Your task to perform on an android device: toggle data saver in the chrome app Image 0: 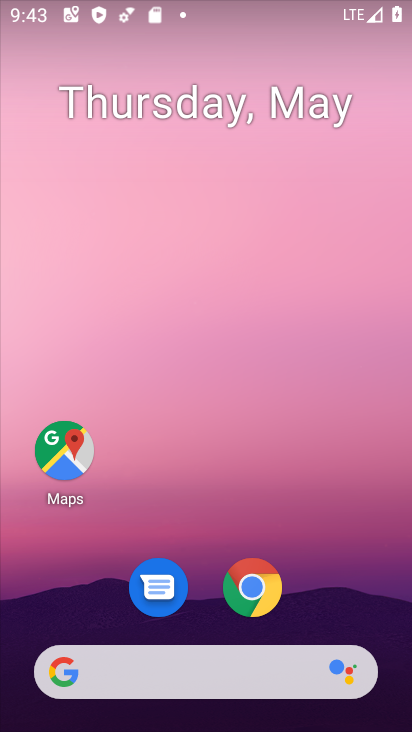
Step 0: click (244, 583)
Your task to perform on an android device: toggle data saver in the chrome app Image 1: 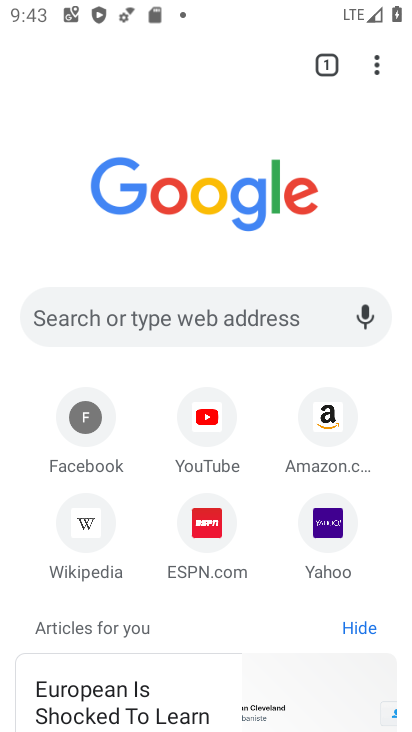
Step 1: click (377, 67)
Your task to perform on an android device: toggle data saver in the chrome app Image 2: 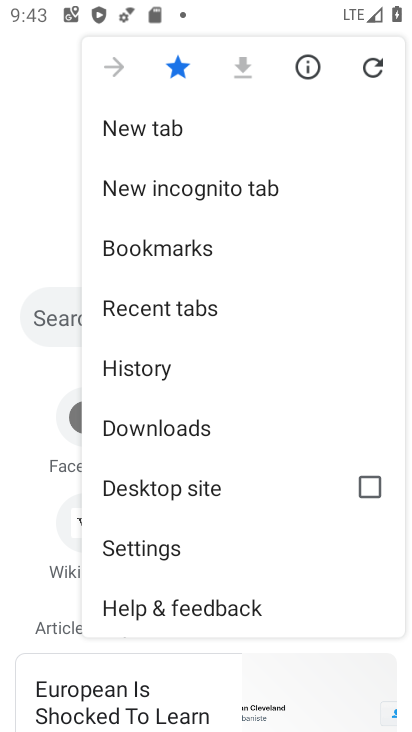
Step 2: click (141, 545)
Your task to perform on an android device: toggle data saver in the chrome app Image 3: 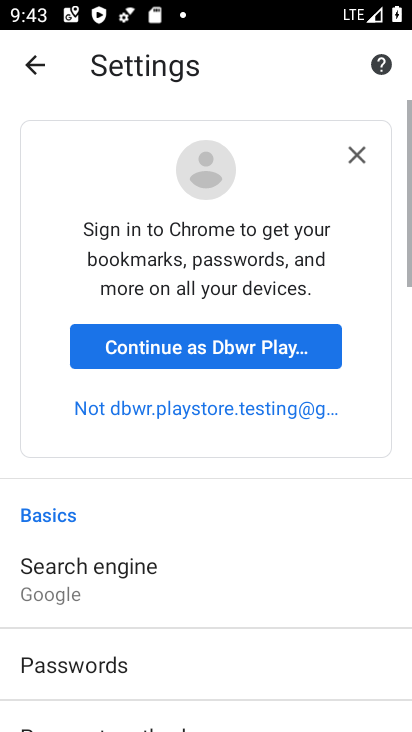
Step 3: drag from (221, 619) to (223, 151)
Your task to perform on an android device: toggle data saver in the chrome app Image 4: 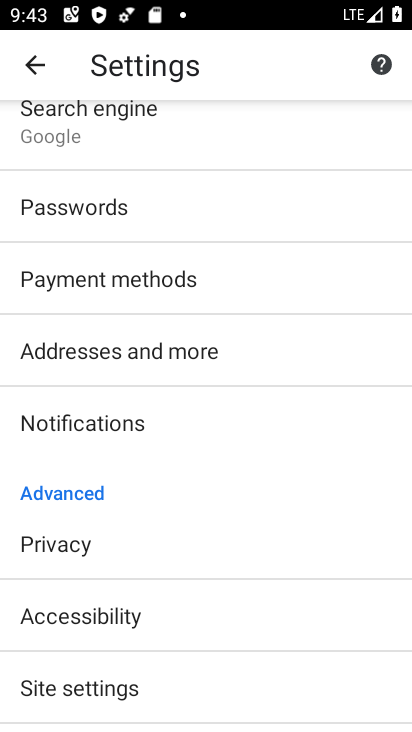
Step 4: drag from (182, 581) to (181, 252)
Your task to perform on an android device: toggle data saver in the chrome app Image 5: 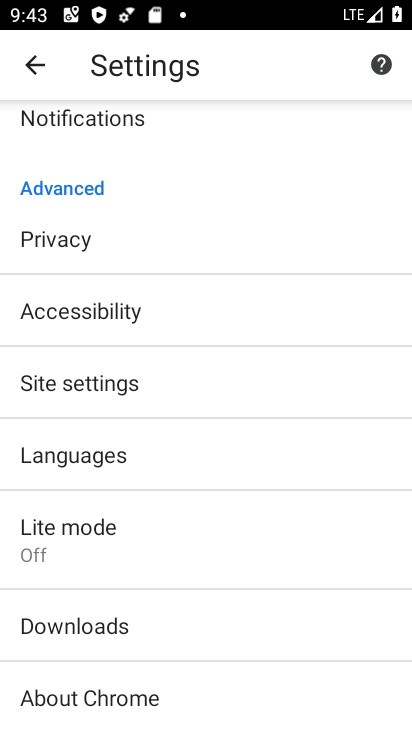
Step 5: click (54, 539)
Your task to perform on an android device: toggle data saver in the chrome app Image 6: 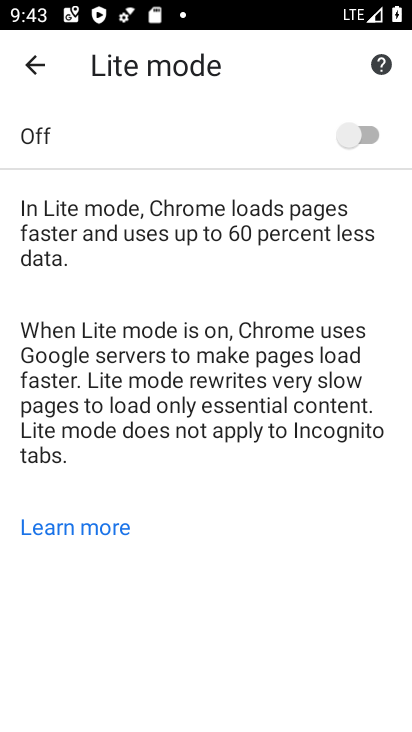
Step 6: click (346, 142)
Your task to perform on an android device: toggle data saver in the chrome app Image 7: 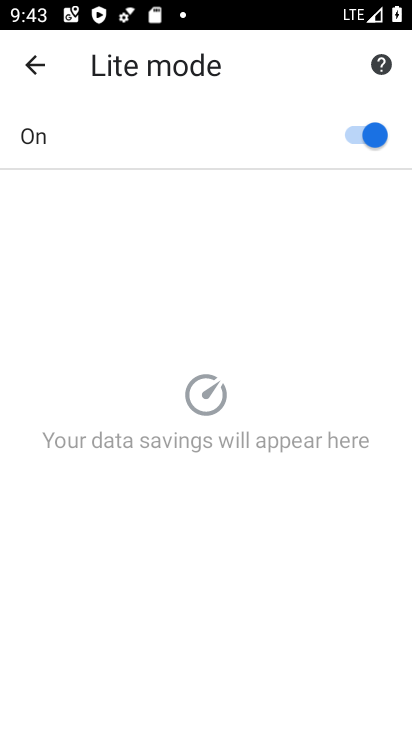
Step 7: task complete